Your task to perform on an android device: Search for 35 best books of all time Image 0: 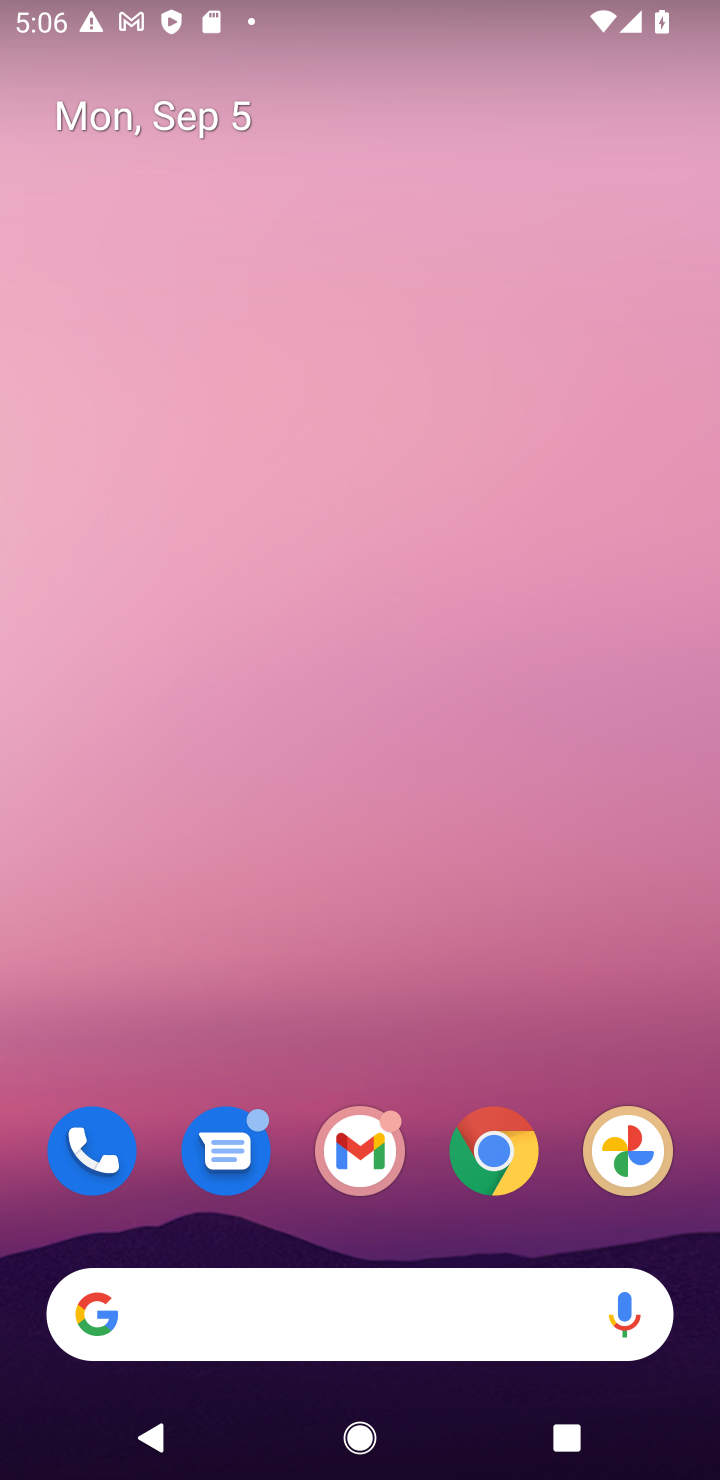
Step 0: click (521, 1152)
Your task to perform on an android device: Search for 35 best books of all time Image 1: 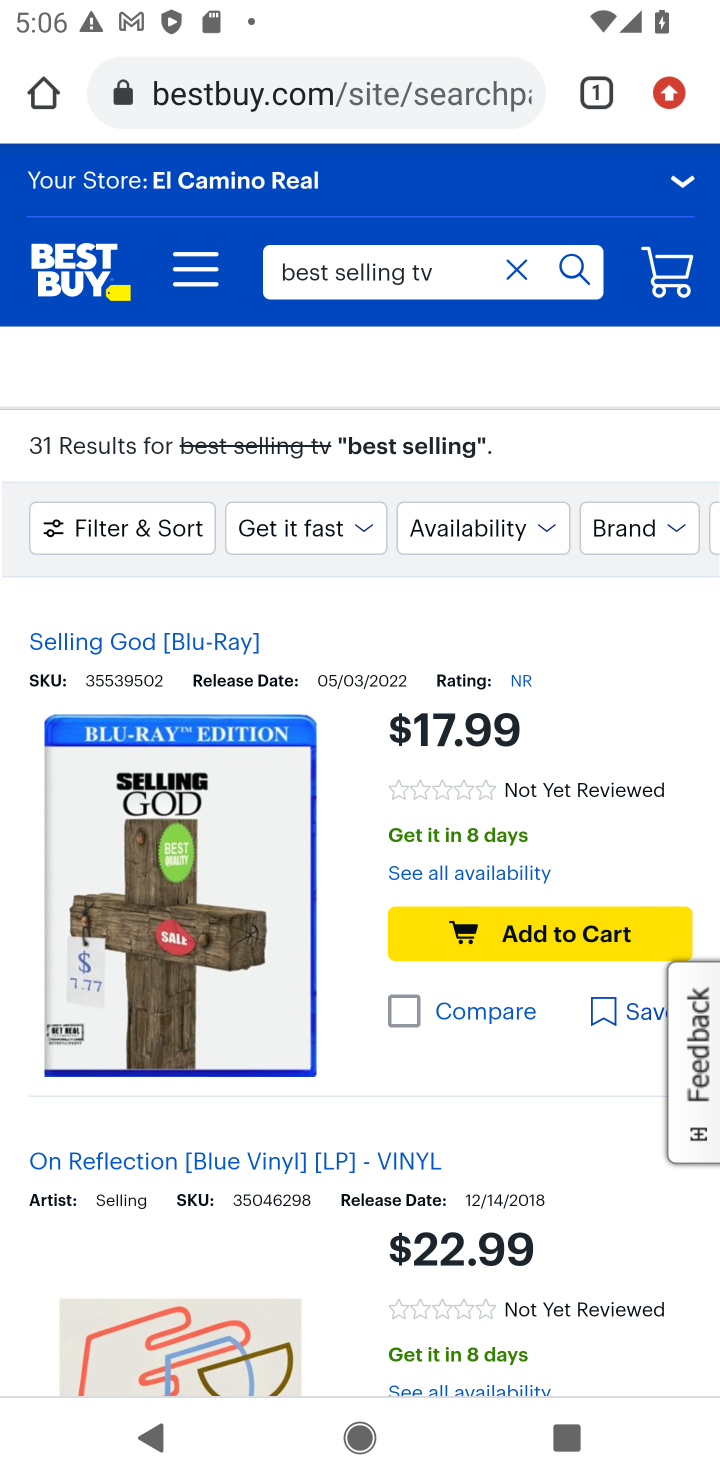
Step 1: click (484, 103)
Your task to perform on an android device: Search for 35 best books of all time Image 2: 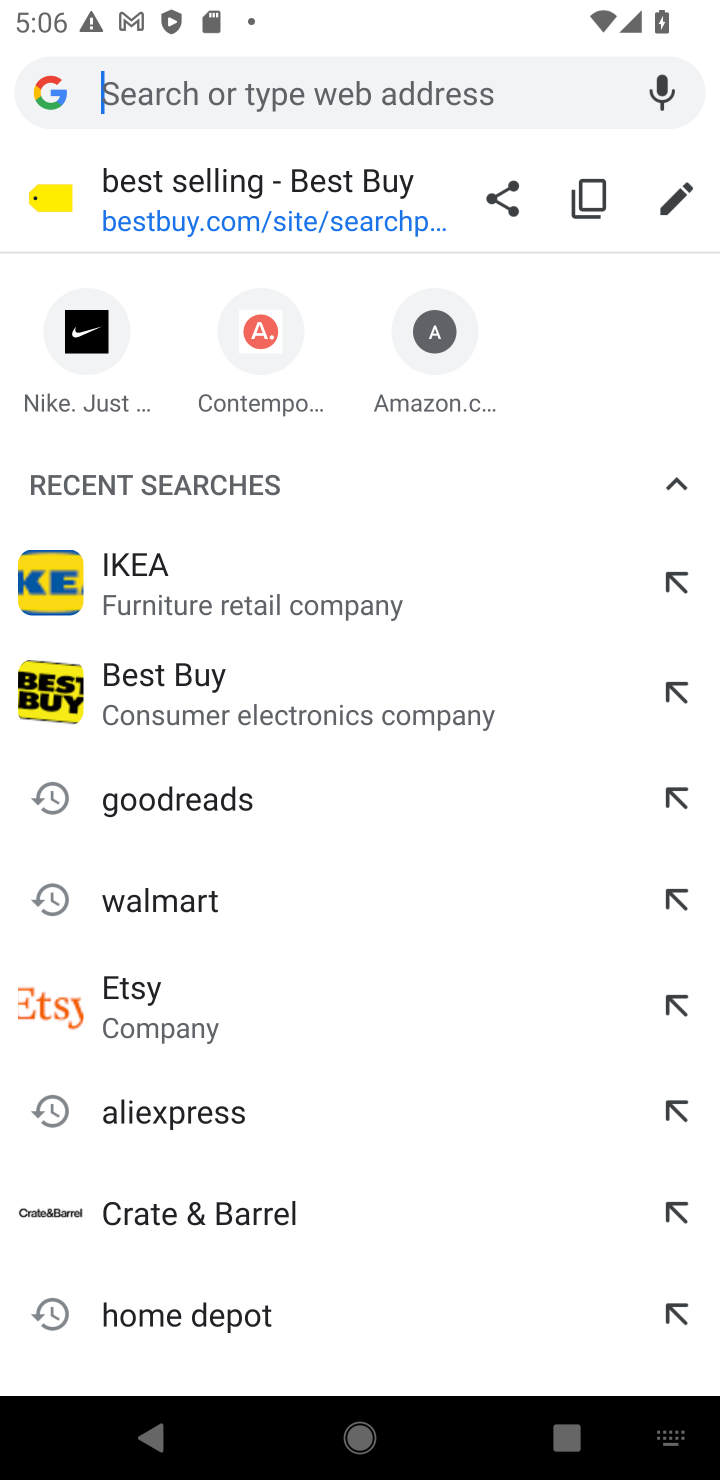
Step 2: type "35 best books of all the time"
Your task to perform on an android device: Search for 35 best books of all time Image 3: 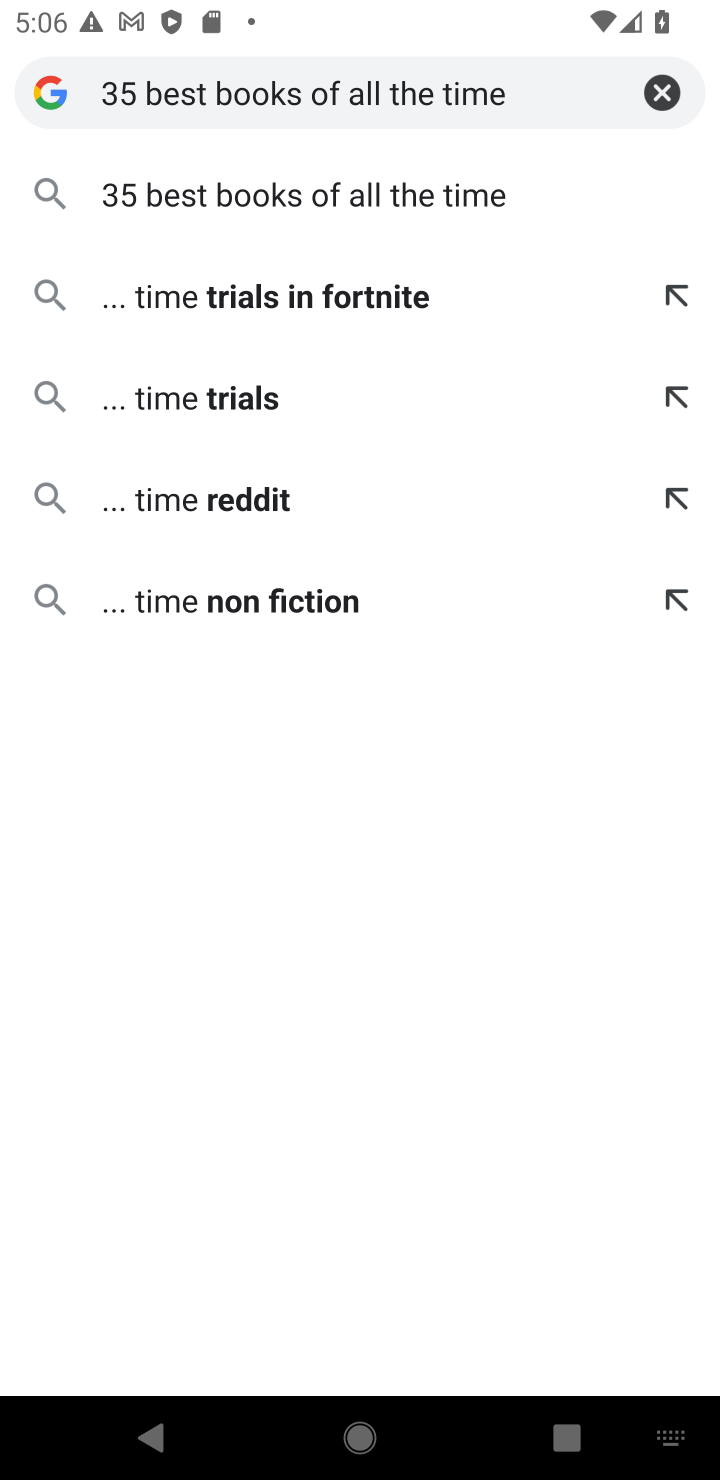
Step 3: click (503, 188)
Your task to perform on an android device: Search for 35 best books of all time Image 4: 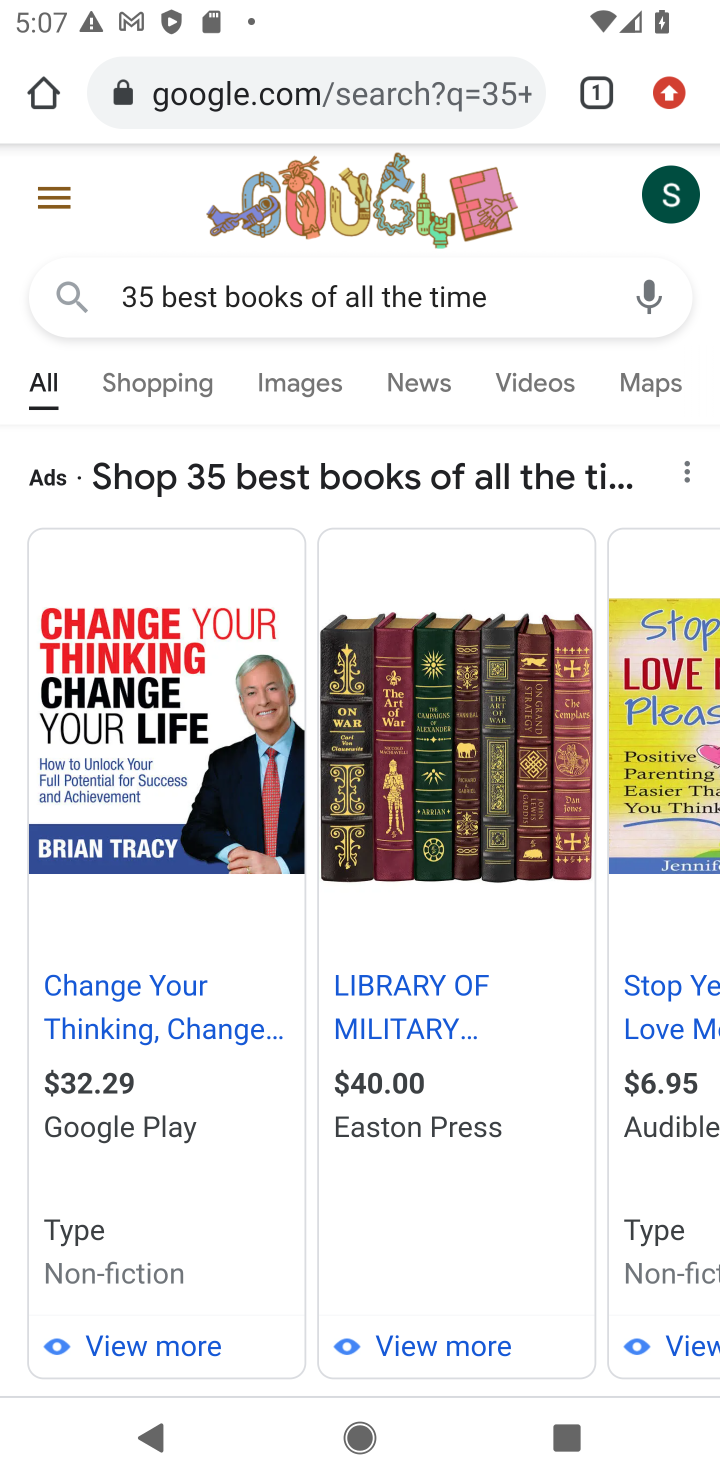
Step 4: drag from (431, 655) to (467, 422)
Your task to perform on an android device: Search for 35 best books of all time Image 5: 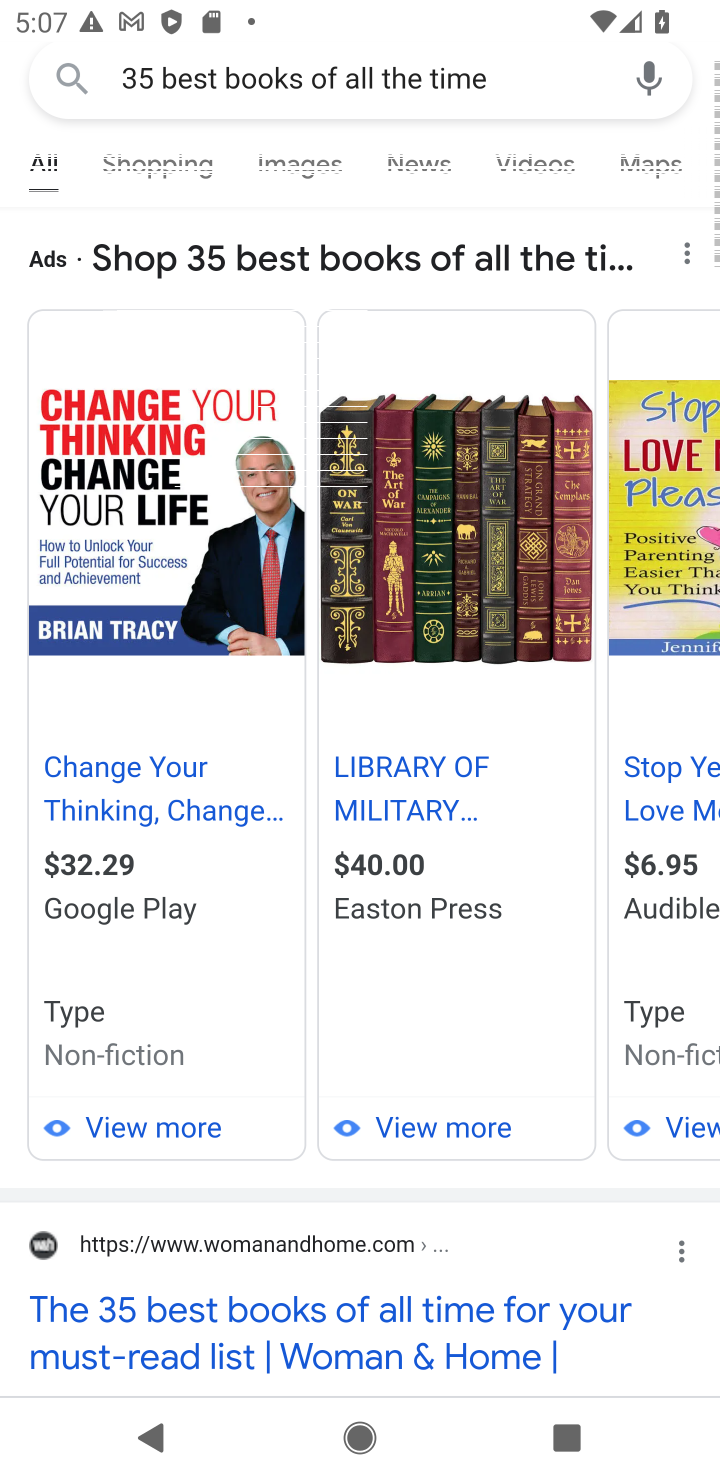
Step 5: drag from (384, 955) to (384, 489)
Your task to perform on an android device: Search for 35 best books of all time Image 6: 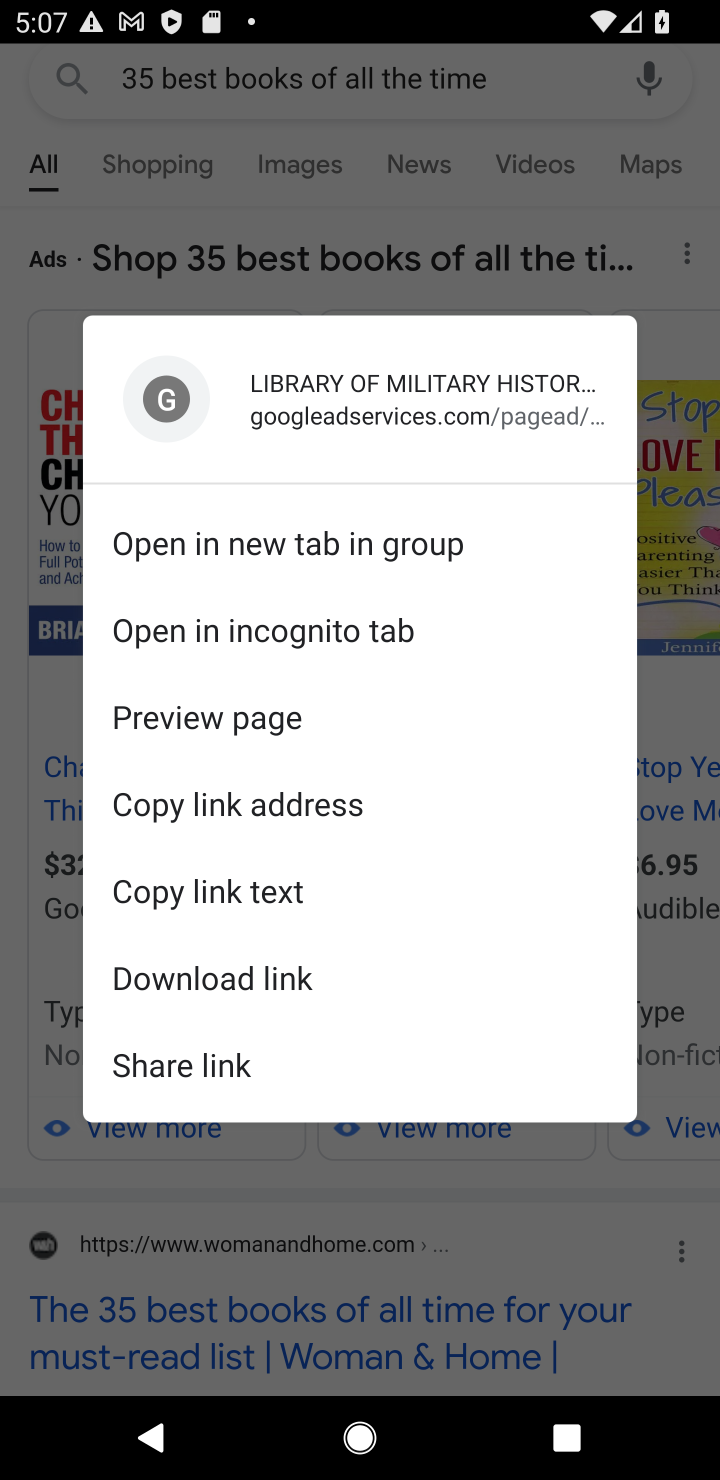
Step 6: click (378, 1248)
Your task to perform on an android device: Search for 35 best books of all time Image 7: 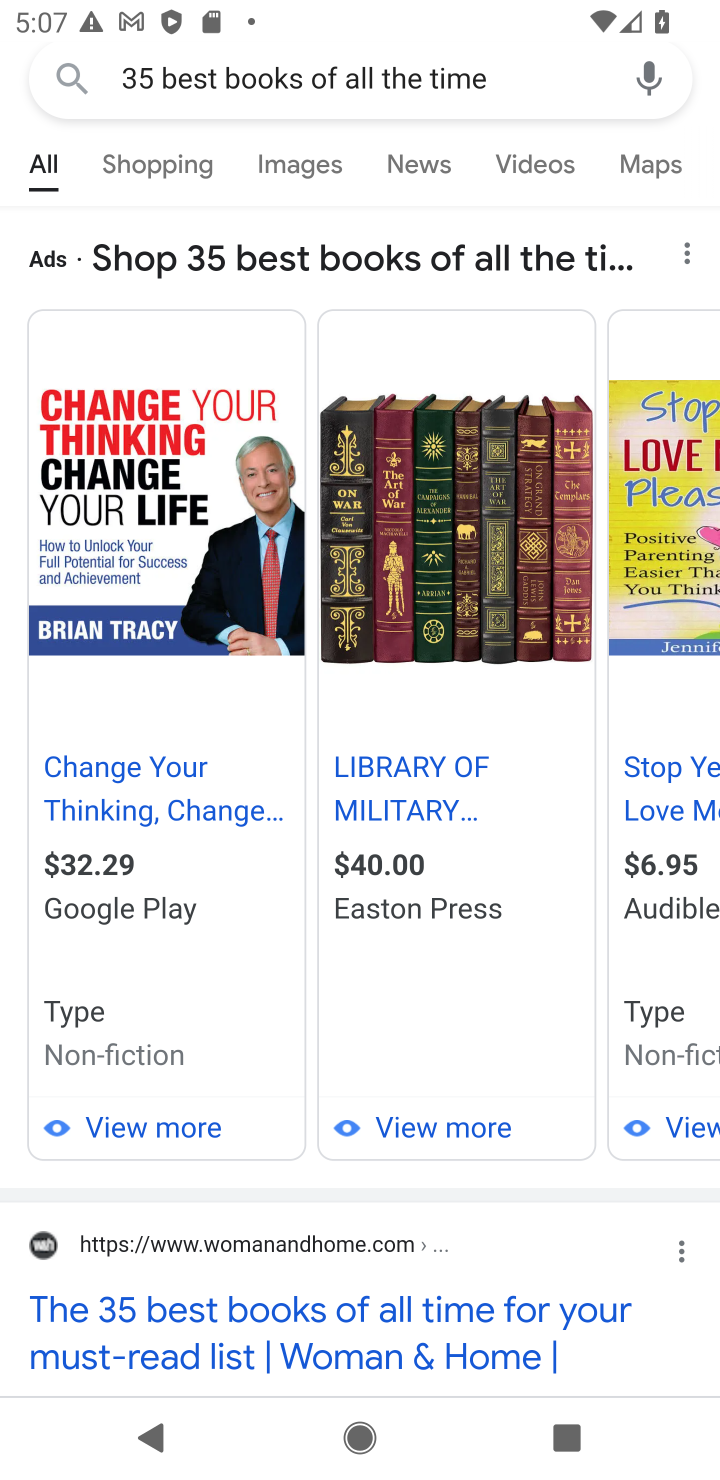
Step 7: drag from (390, 649) to (434, 84)
Your task to perform on an android device: Search for 35 best books of all time Image 8: 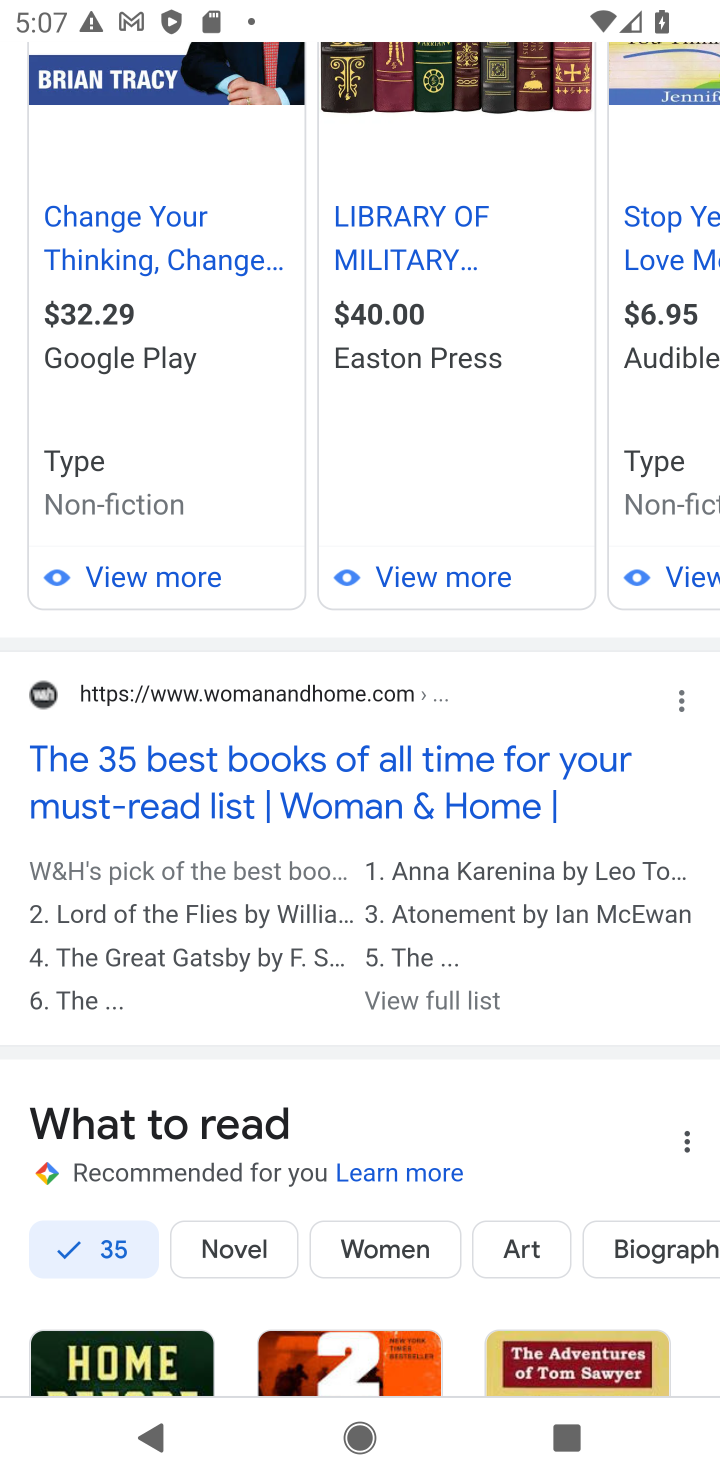
Step 8: click (395, 795)
Your task to perform on an android device: Search for 35 best books of all time Image 9: 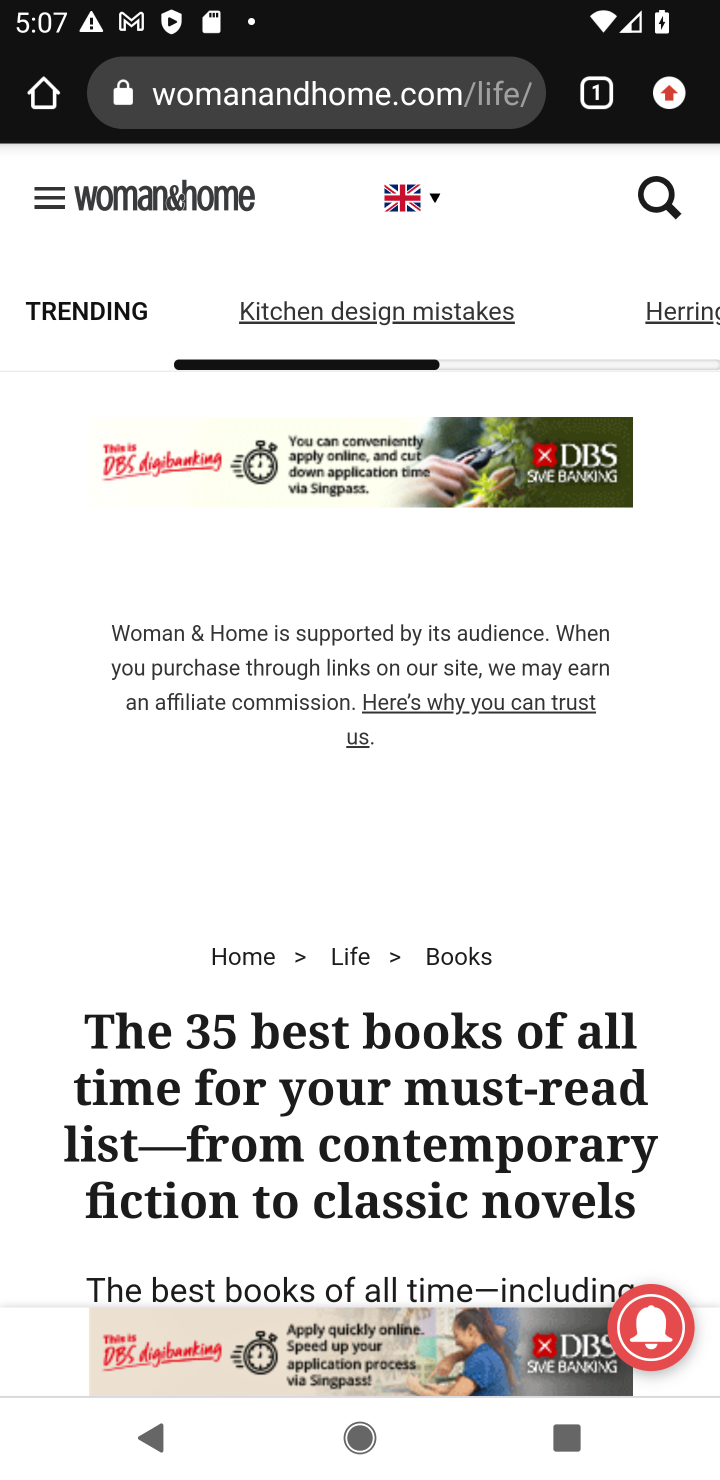
Step 9: task complete